Your task to perform on an android device: Is it going to rain tomorrow? Image 0: 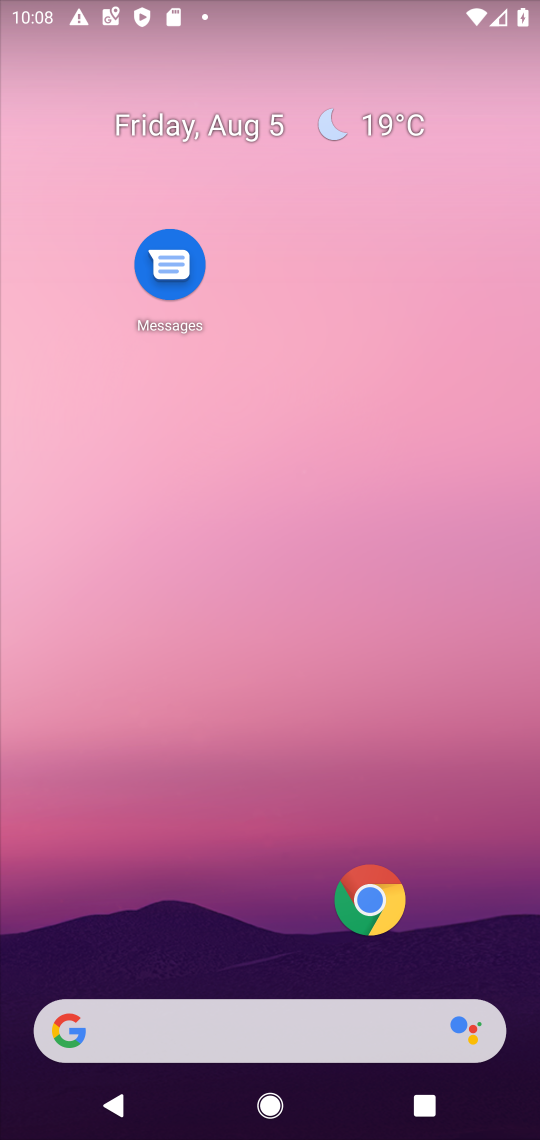
Step 0: drag from (210, 957) to (345, 64)
Your task to perform on an android device: Is it going to rain tomorrow? Image 1: 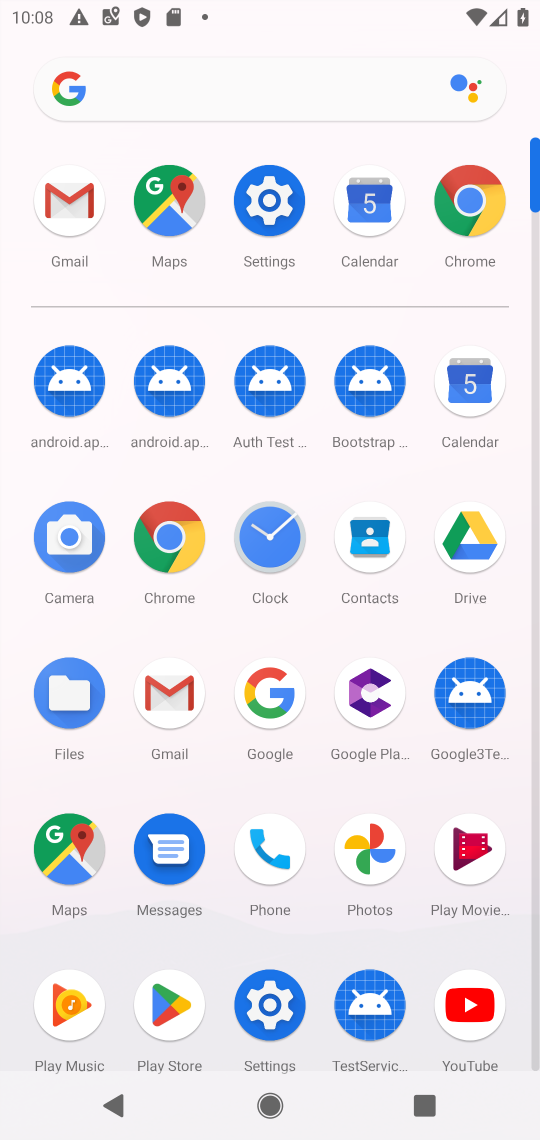
Step 1: click (177, 536)
Your task to perform on an android device: Is it going to rain tomorrow? Image 2: 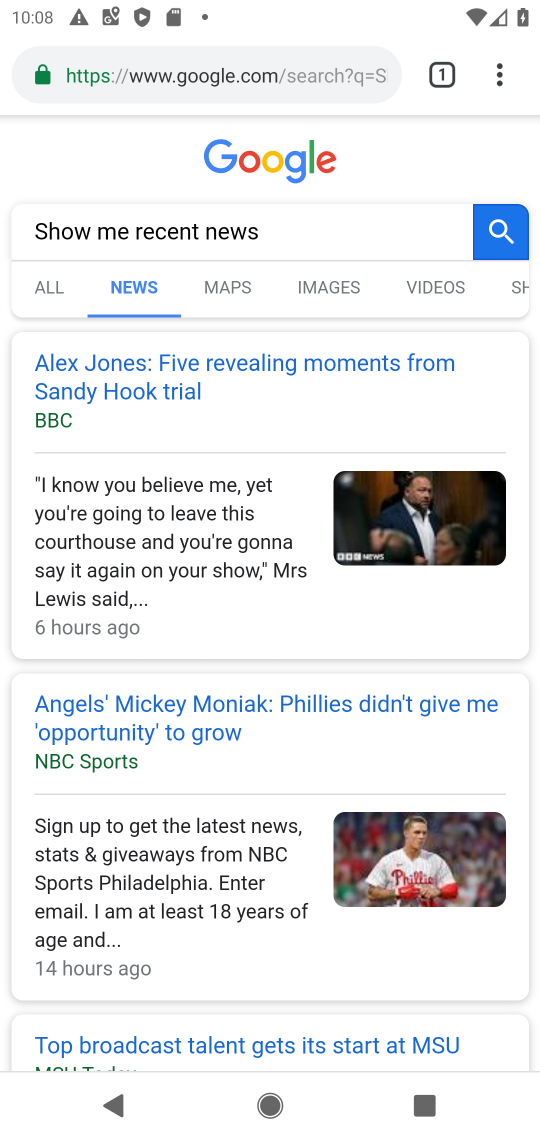
Step 2: click (286, 66)
Your task to perform on an android device: Is it going to rain tomorrow? Image 3: 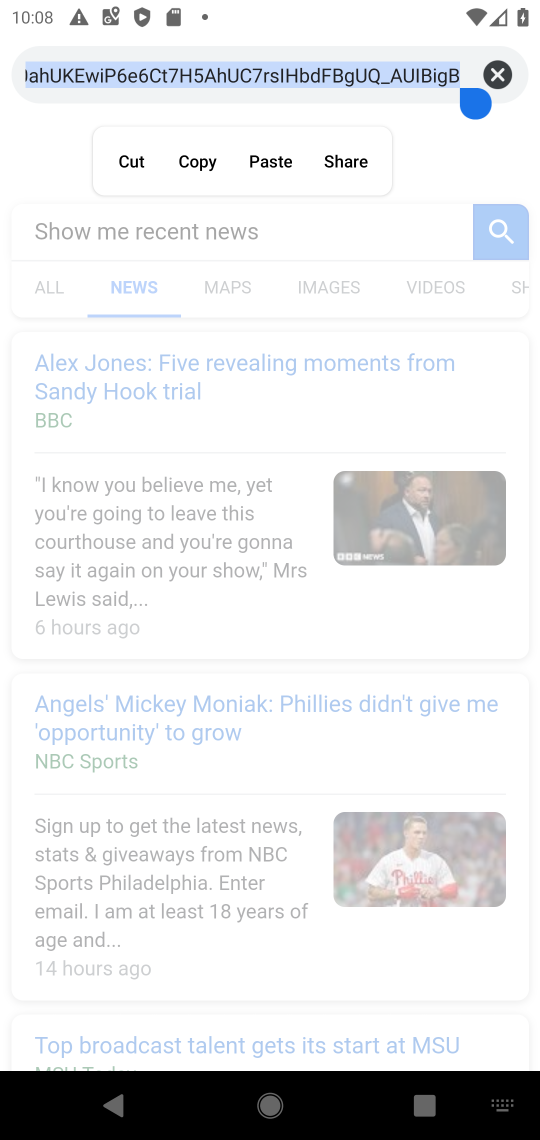
Step 3: click (498, 72)
Your task to perform on an android device: Is it going to rain tomorrow? Image 4: 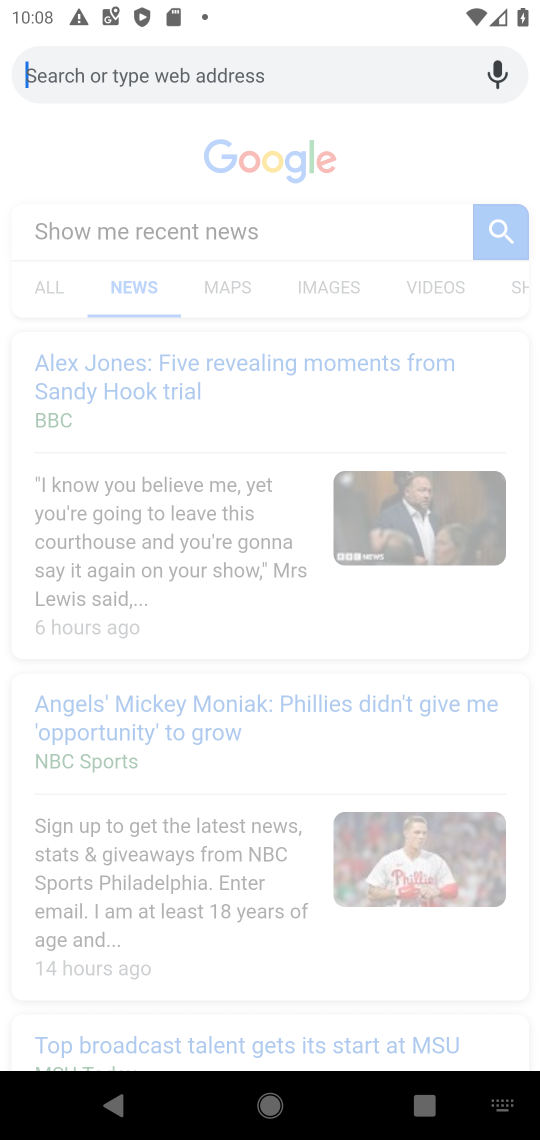
Step 4: type "Is it going to rain tomorrow?"
Your task to perform on an android device: Is it going to rain tomorrow? Image 5: 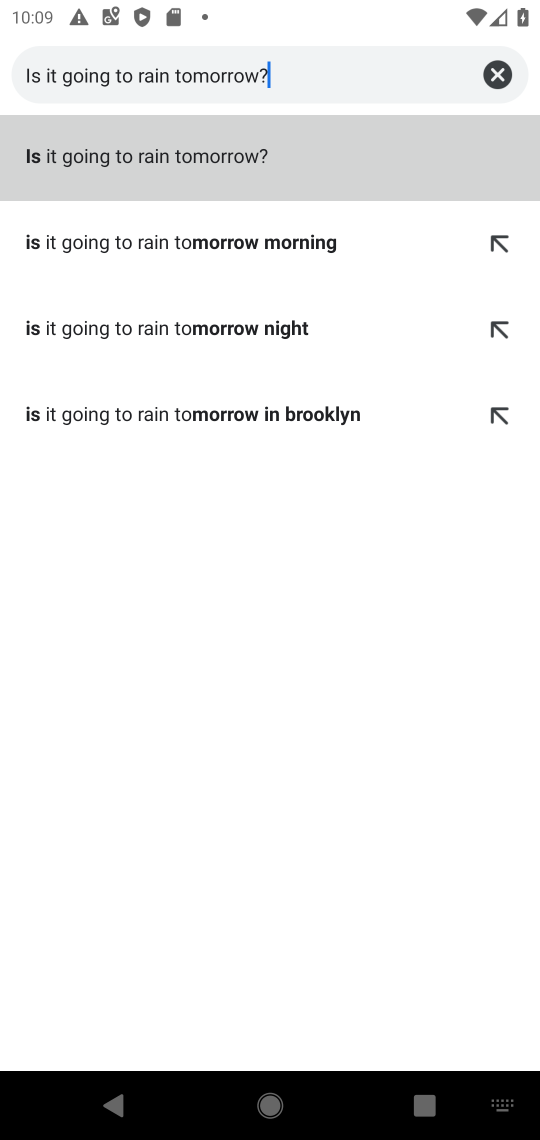
Step 5: click (189, 152)
Your task to perform on an android device: Is it going to rain tomorrow? Image 6: 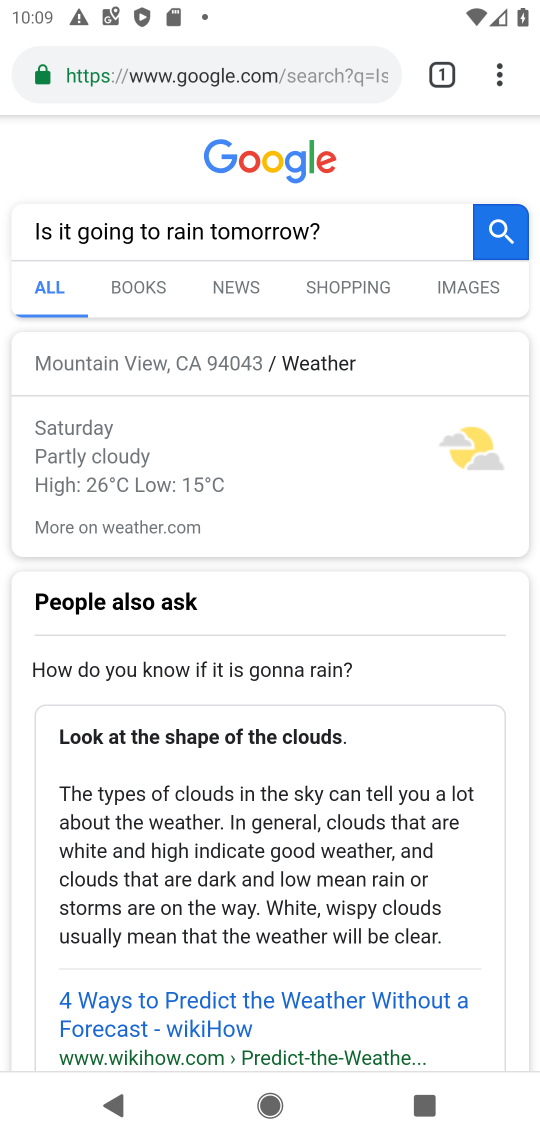
Step 6: task complete